Your task to perform on an android device: check storage Image 0: 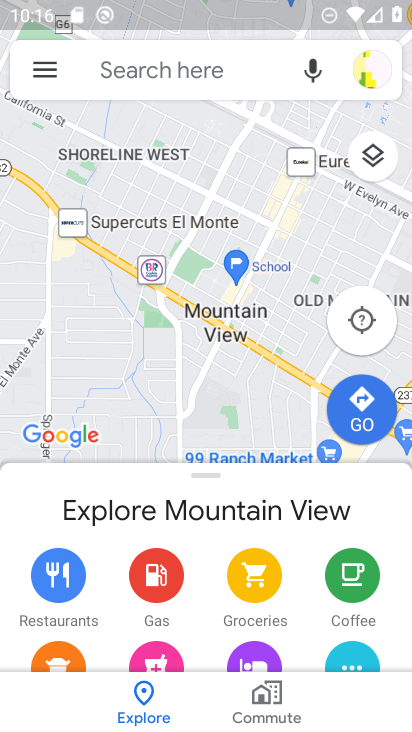
Step 0: press home button
Your task to perform on an android device: check storage Image 1: 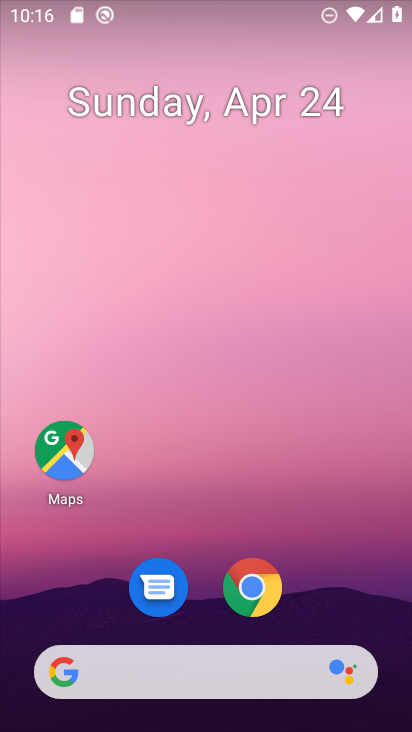
Step 1: drag from (369, 598) to (357, 102)
Your task to perform on an android device: check storage Image 2: 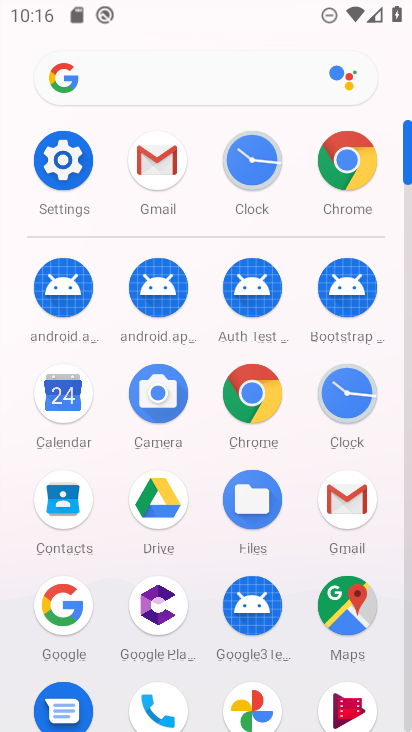
Step 2: click (60, 161)
Your task to perform on an android device: check storage Image 3: 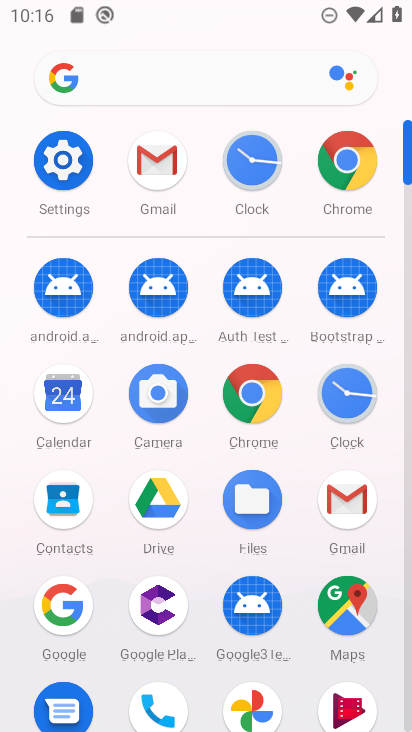
Step 3: click (67, 176)
Your task to perform on an android device: check storage Image 4: 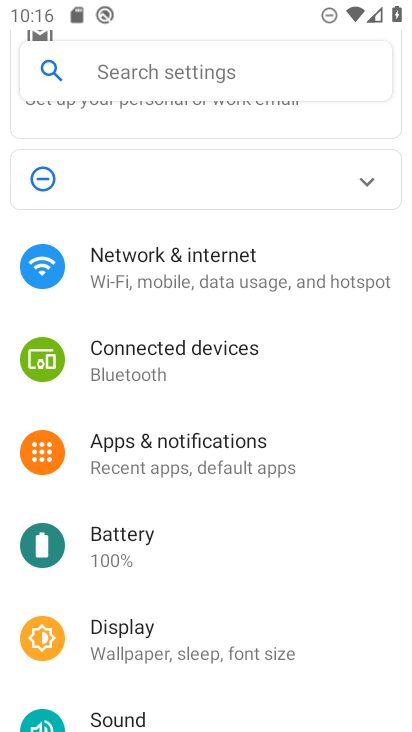
Step 4: drag from (256, 602) to (307, 343)
Your task to perform on an android device: check storage Image 5: 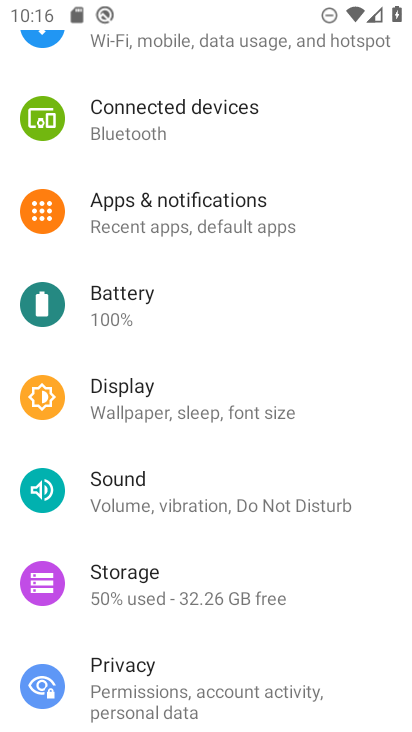
Step 5: drag from (334, 539) to (330, 338)
Your task to perform on an android device: check storage Image 6: 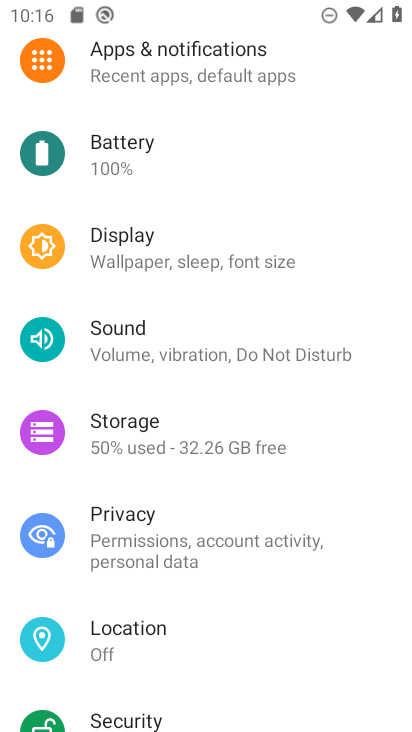
Step 6: click (172, 448)
Your task to perform on an android device: check storage Image 7: 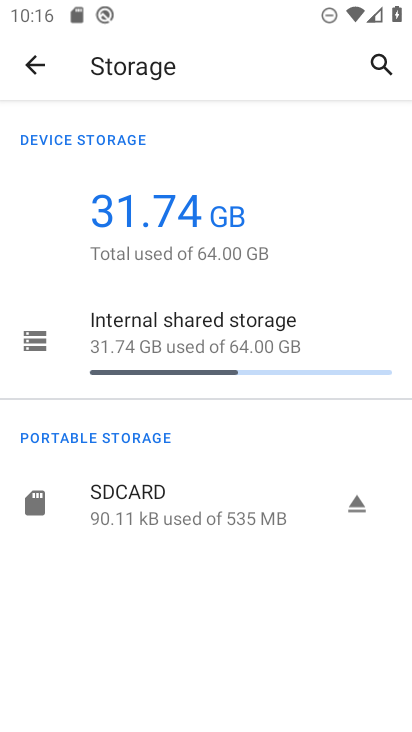
Step 7: click (31, 340)
Your task to perform on an android device: check storage Image 8: 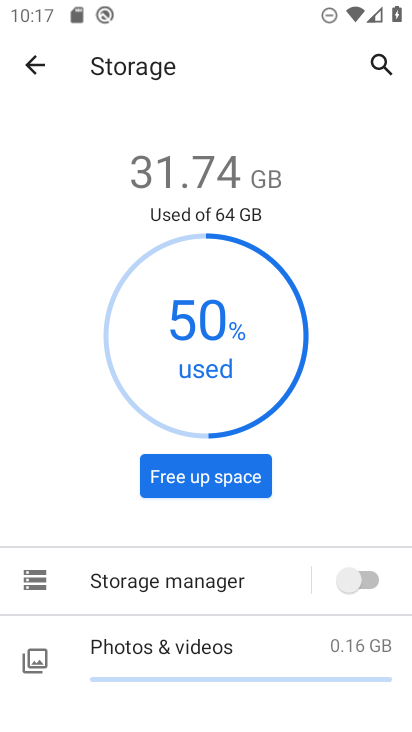
Step 8: click (29, 582)
Your task to perform on an android device: check storage Image 9: 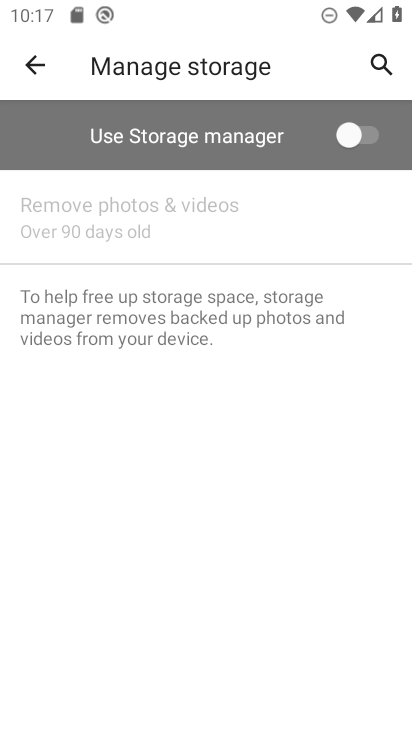
Step 9: task complete